Your task to perform on an android device: create a new album in the google photos Image 0: 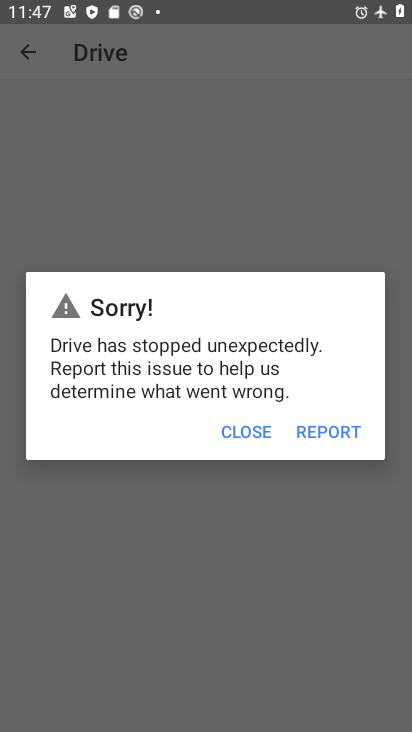
Step 0: press home button
Your task to perform on an android device: create a new album in the google photos Image 1: 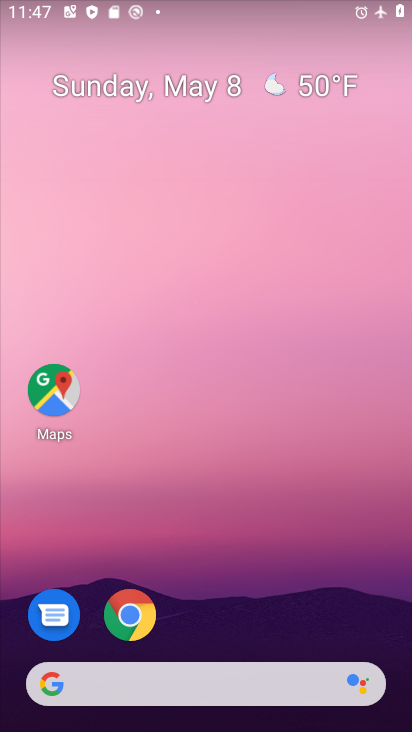
Step 1: drag from (282, 713) to (233, 307)
Your task to perform on an android device: create a new album in the google photos Image 2: 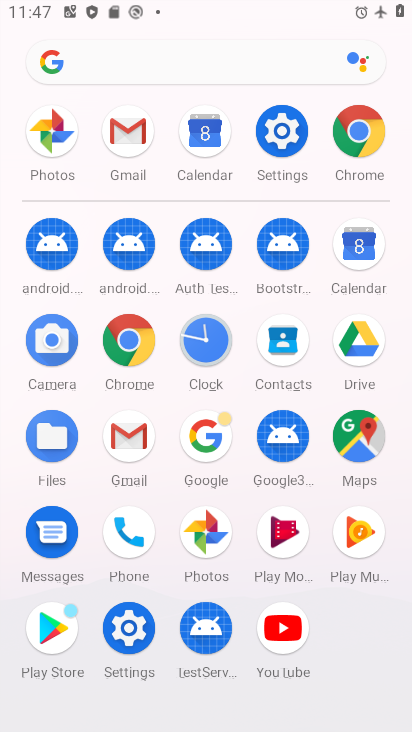
Step 2: click (213, 503)
Your task to perform on an android device: create a new album in the google photos Image 3: 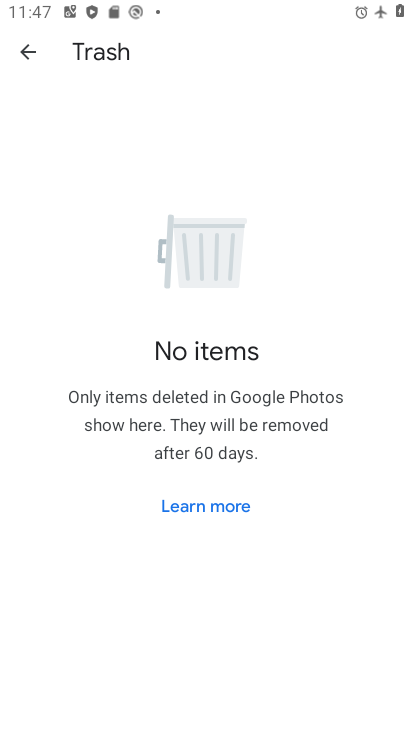
Step 3: click (28, 49)
Your task to perform on an android device: create a new album in the google photos Image 4: 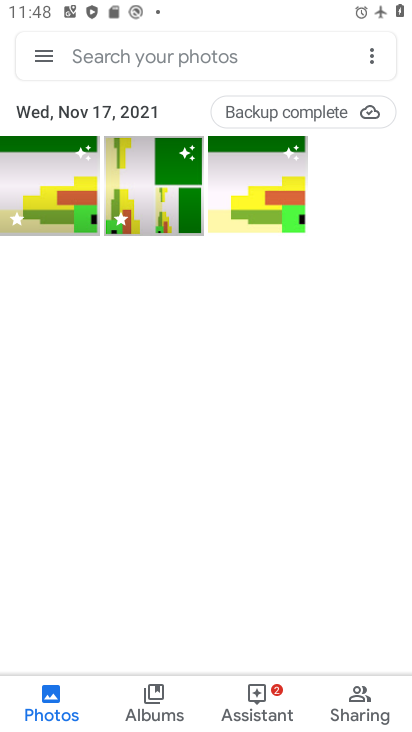
Step 4: click (257, 193)
Your task to perform on an android device: create a new album in the google photos Image 5: 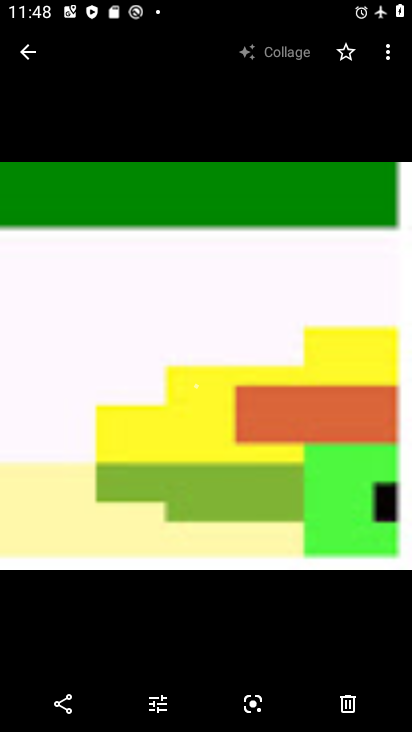
Step 5: click (387, 68)
Your task to perform on an android device: create a new album in the google photos Image 6: 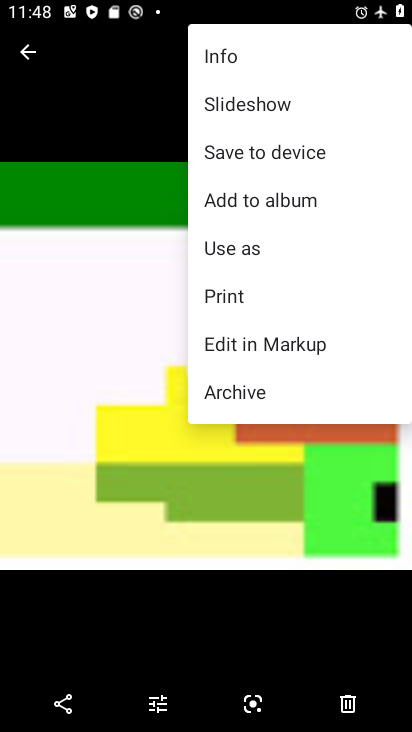
Step 6: click (265, 210)
Your task to perform on an android device: create a new album in the google photos Image 7: 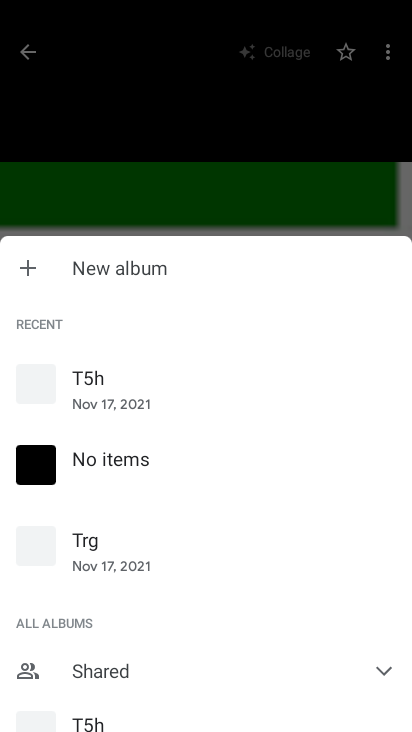
Step 7: click (92, 271)
Your task to perform on an android device: create a new album in the google photos Image 8: 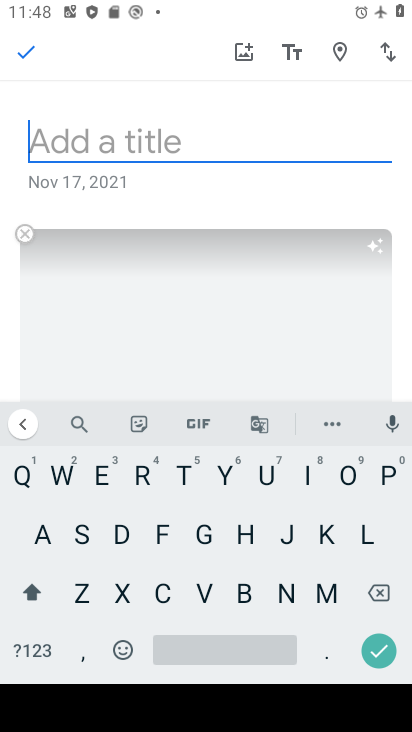
Step 8: click (232, 488)
Your task to perform on an android device: create a new album in the google photos Image 9: 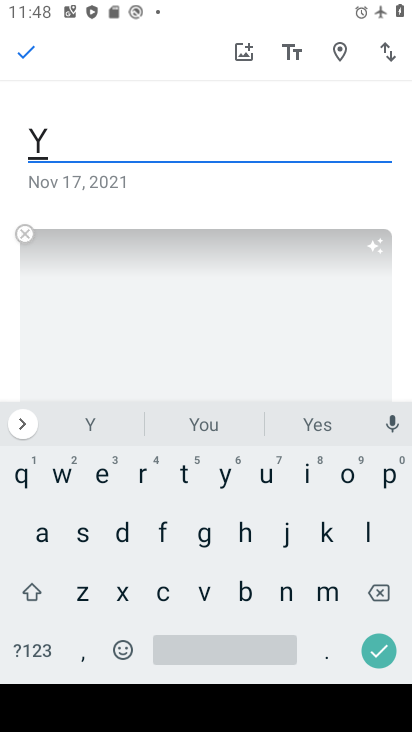
Step 9: click (251, 584)
Your task to perform on an android device: create a new album in the google photos Image 10: 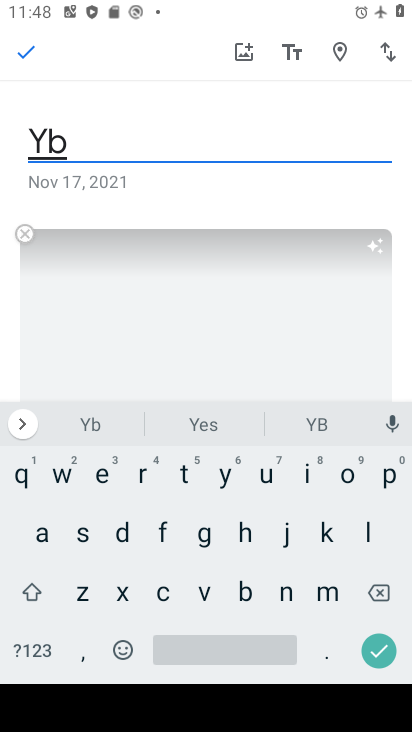
Step 10: click (353, 481)
Your task to perform on an android device: create a new album in the google photos Image 11: 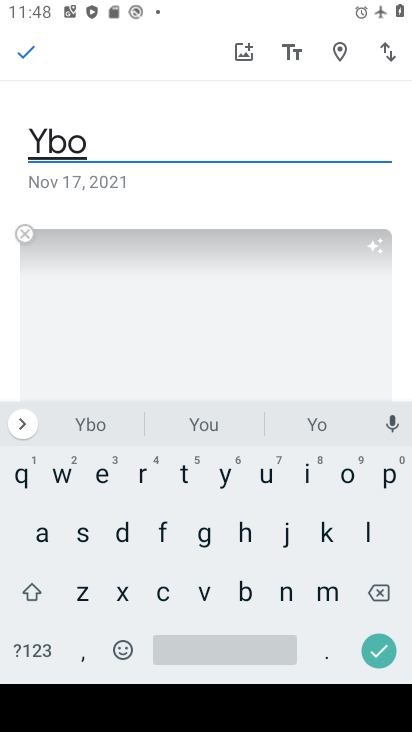
Step 11: click (283, 590)
Your task to perform on an android device: create a new album in the google photos Image 12: 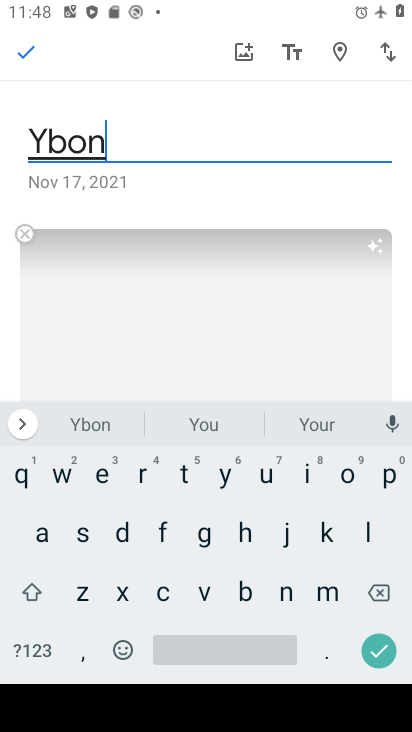
Step 12: click (18, 53)
Your task to perform on an android device: create a new album in the google photos Image 13: 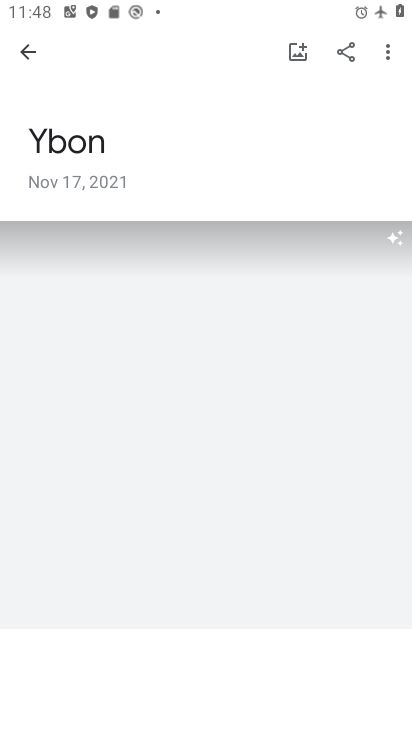
Step 13: task complete